Your task to perform on an android device: check storage Image 0: 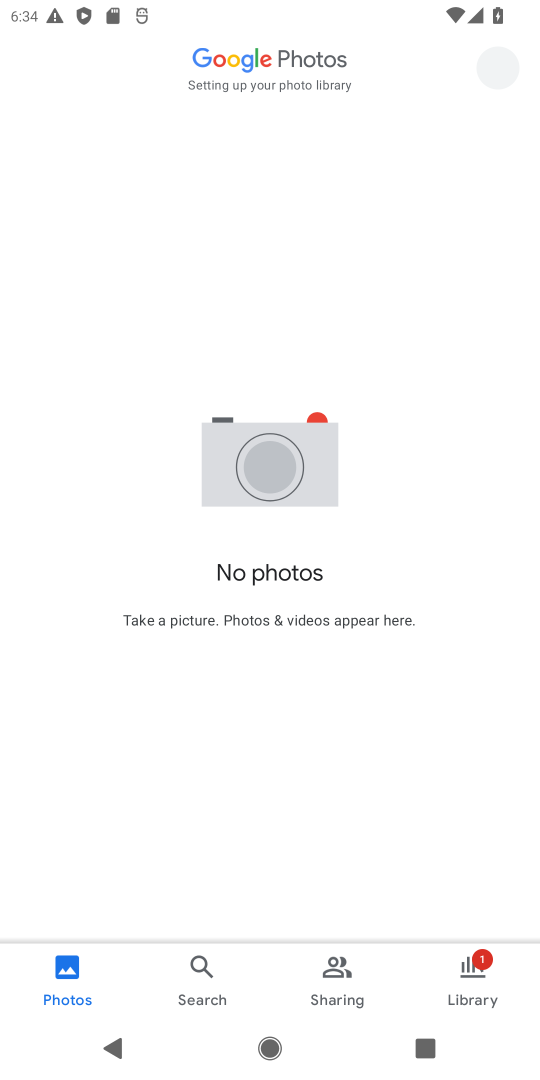
Step 0: press home button
Your task to perform on an android device: check storage Image 1: 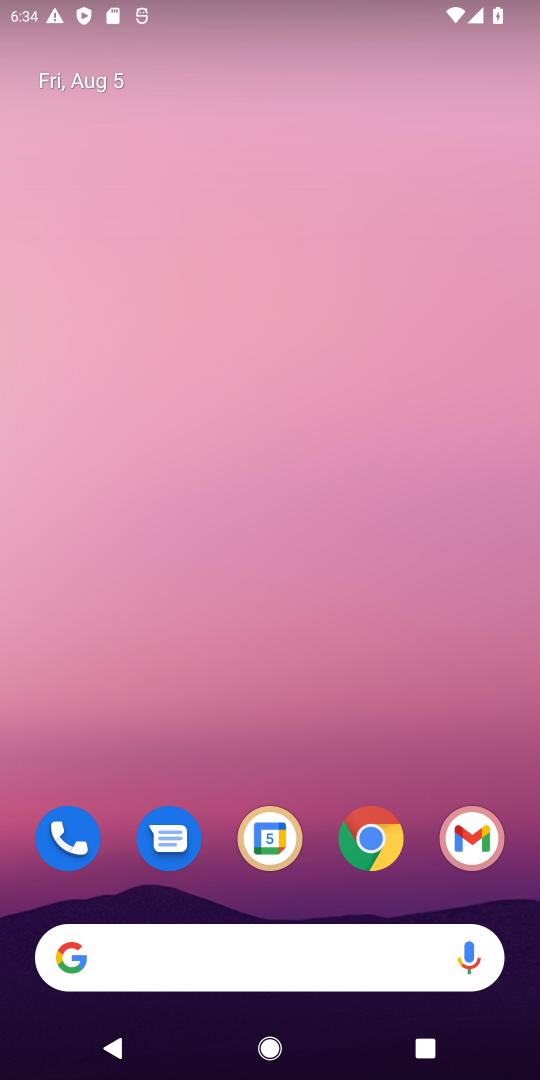
Step 1: drag from (270, 783) to (282, 173)
Your task to perform on an android device: check storage Image 2: 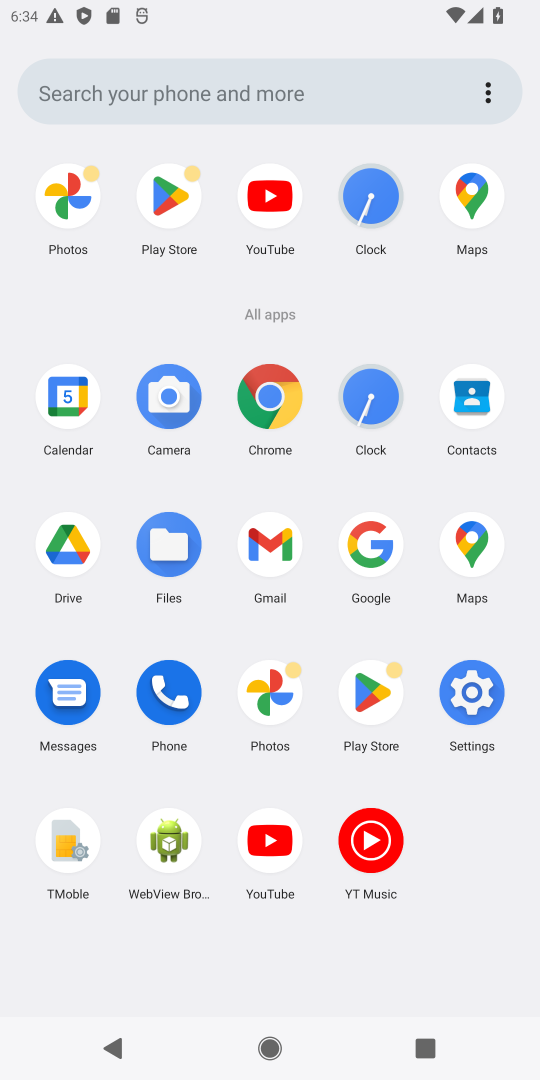
Step 2: click (455, 686)
Your task to perform on an android device: check storage Image 3: 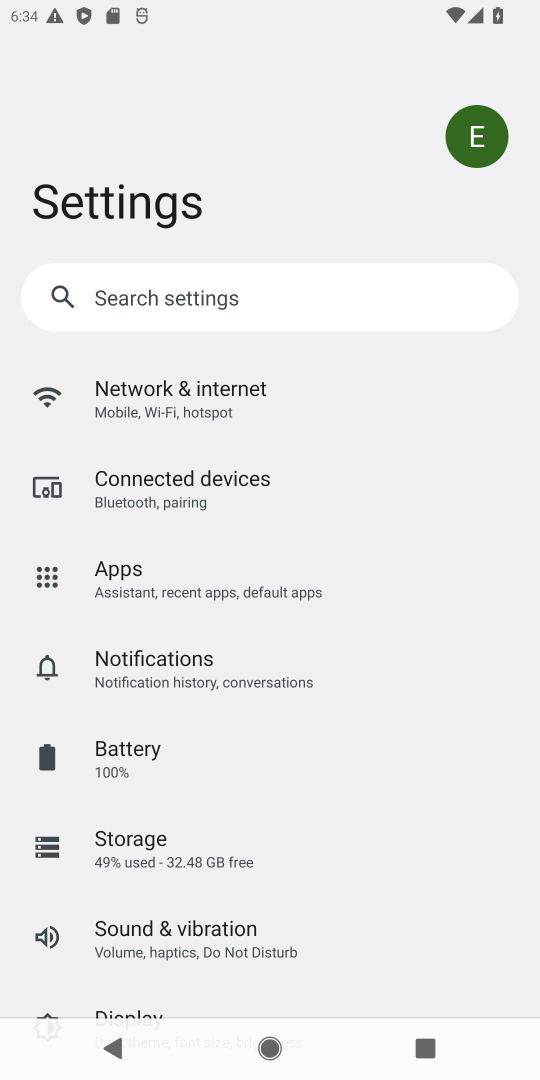
Step 3: click (102, 858)
Your task to perform on an android device: check storage Image 4: 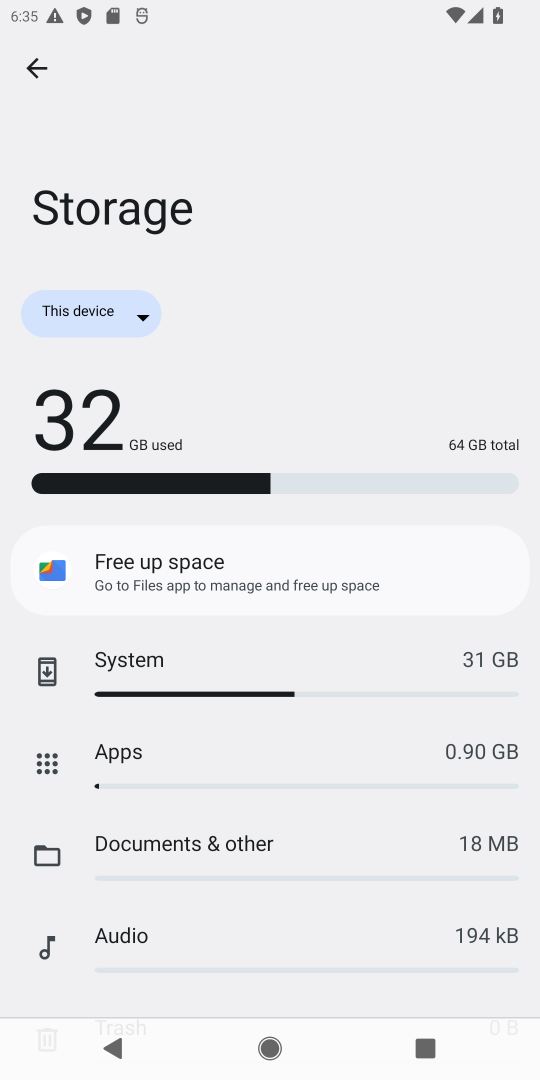
Step 4: task complete